Your task to perform on an android device: Open internet settings Image 0: 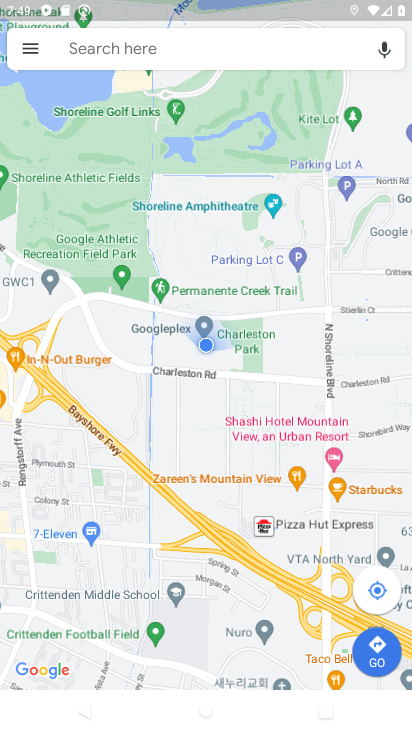
Step 0: press home button
Your task to perform on an android device: Open internet settings Image 1: 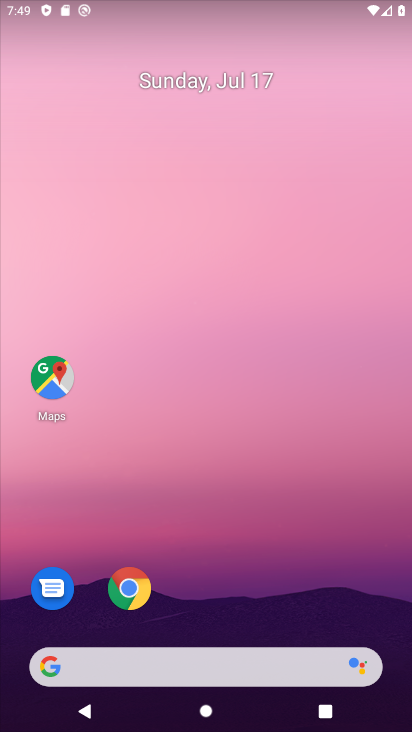
Step 1: drag from (243, 606) to (225, 283)
Your task to perform on an android device: Open internet settings Image 2: 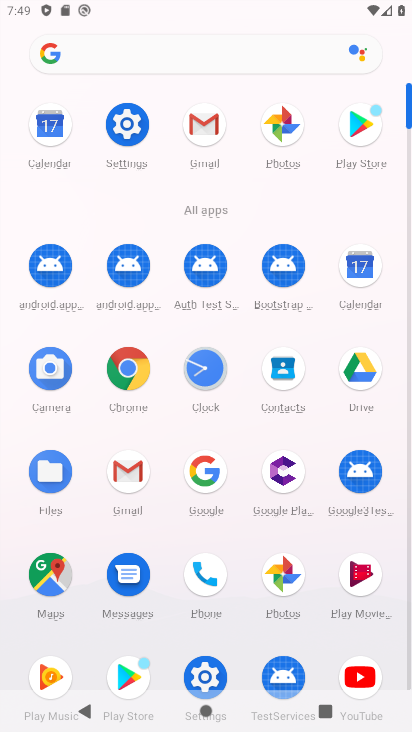
Step 2: click (146, 144)
Your task to perform on an android device: Open internet settings Image 3: 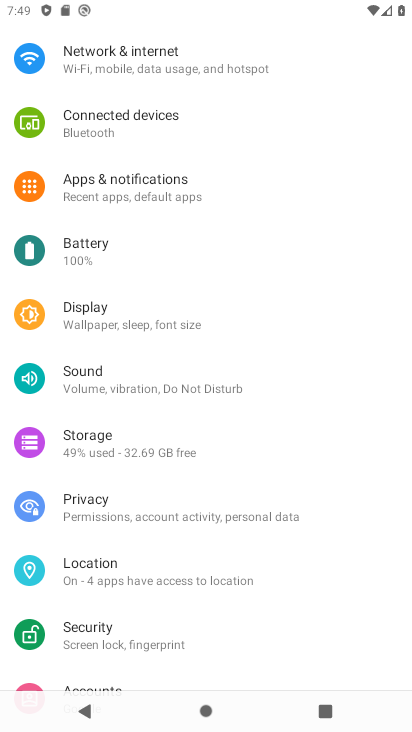
Step 3: click (268, 75)
Your task to perform on an android device: Open internet settings Image 4: 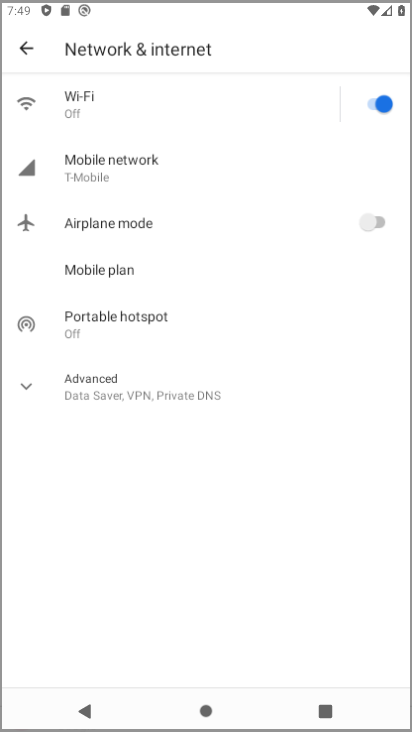
Step 4: task complete